Your task to perform on an android device: Show me popular videos on Youtube Image 0: 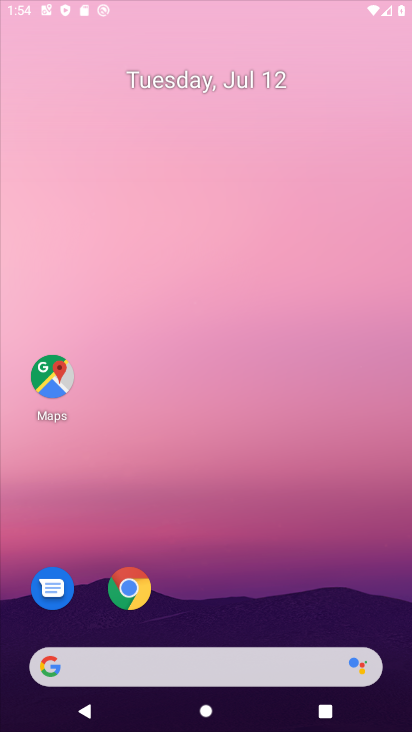
Step 0: click (163, 168)
Your task to perform on an android device: Show me popular videos on Youtube Image 1: 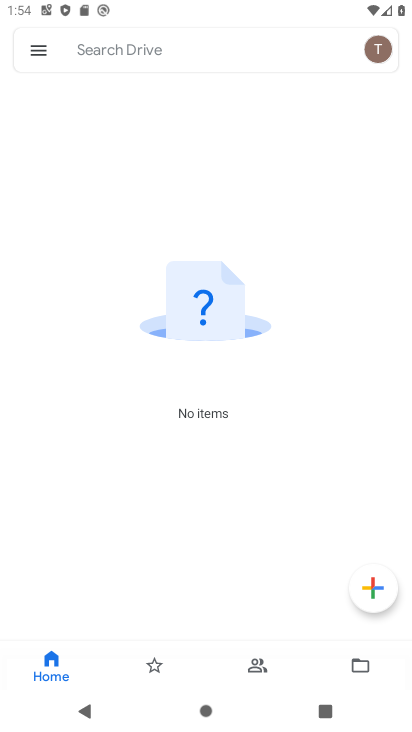
Step 1: press home button
Your task to perform on an android device: Show me popular videos on Youtube Image 2: 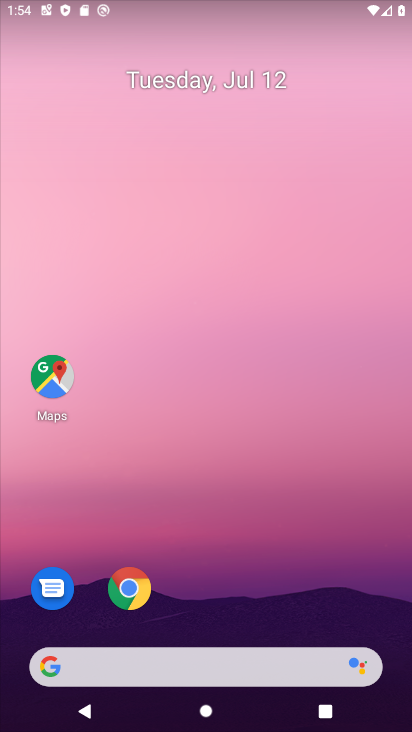
Step 2: drag from (229, 665) to (147, 150)
Your task to perform on an android device: Show me popular videos on Youtube Image 3: 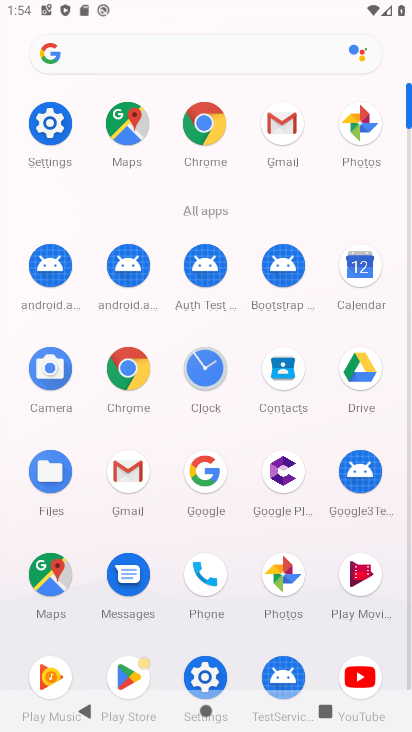
Step 3: click (351, 666)
Your task to perform on an android device: Show me popular videos on Youtube Image 4: 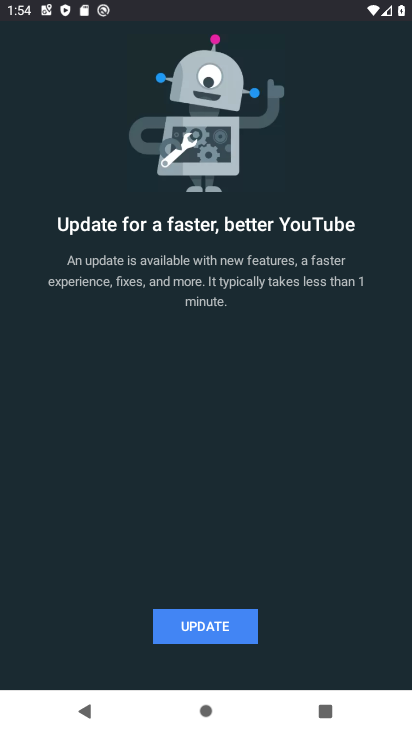
Step 4: click (246, 622)
Your task to perform on an android device: Show me popular videos on Youtube Image 5: 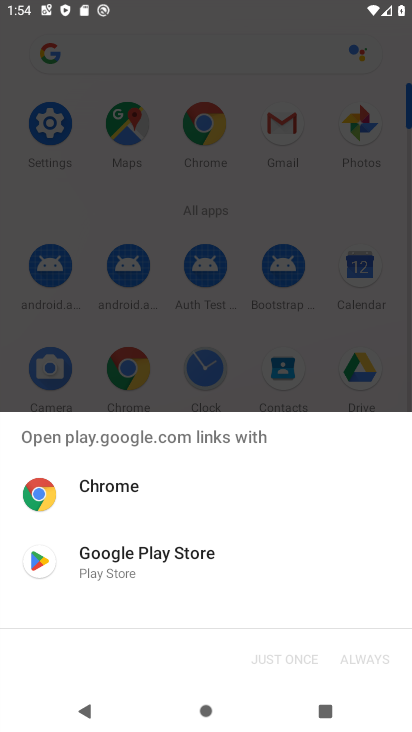
Step 5: click (182, 564)
Your task to perform on an android device: Show me popular videos on Youtube Image 6: 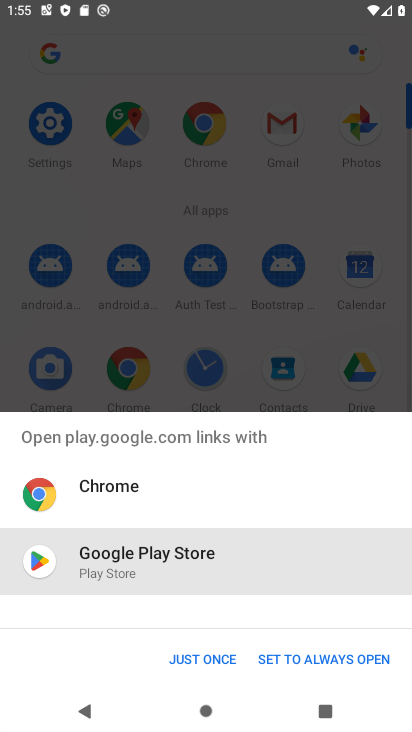
Step 6: click (192, 657)
Your task to perform on an android device: Show me popular videos on Youtube Image 7: 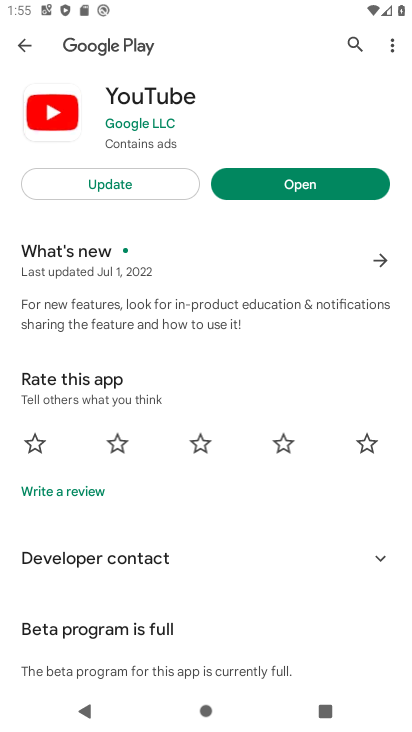
Step 7: click (279, 182)
Your task to perform on an android device: Show me popular videos on Youtube Image 8: 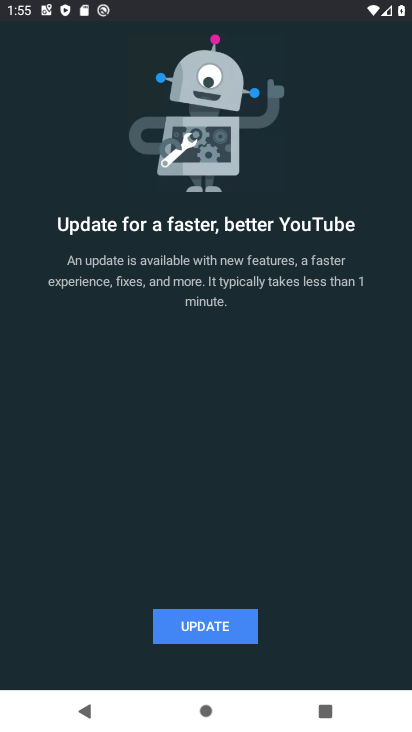
Step 8: click (212, 632)
Your task to perform on an android device: Show me popular videos on Youtube Image 9: 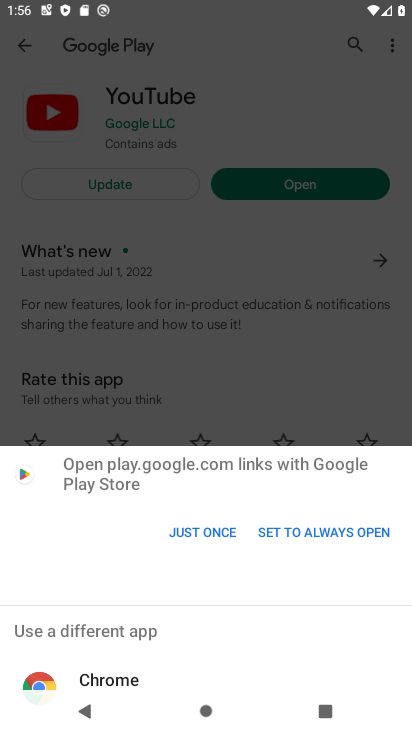
Step 9: click (191, 538)
Your task to perform on an android device: Show me popular videos on Youtube Image 10: 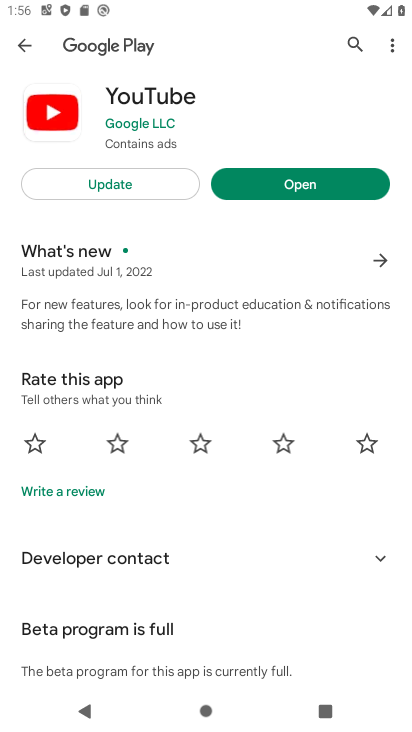
Step 10: click (98, 190)
Your task to perform on an android device: Show me popular videos on Youtube Image 11: 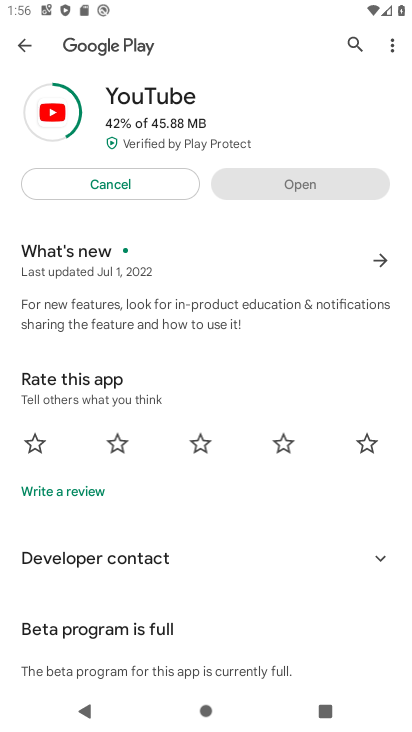
Step 11: click (241, 299)
Your task to perform on an android device: Show me popular videos on Youtube Image 12: 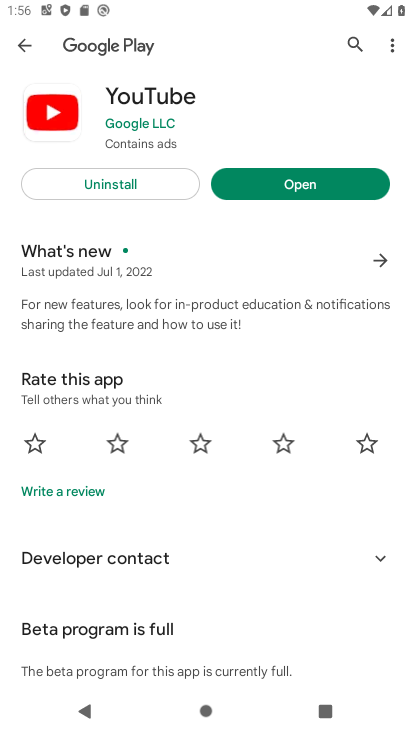
Step 12: click (254, 190)
Your task to perform on an android device: Show me popular videos on Youtube Image 13: 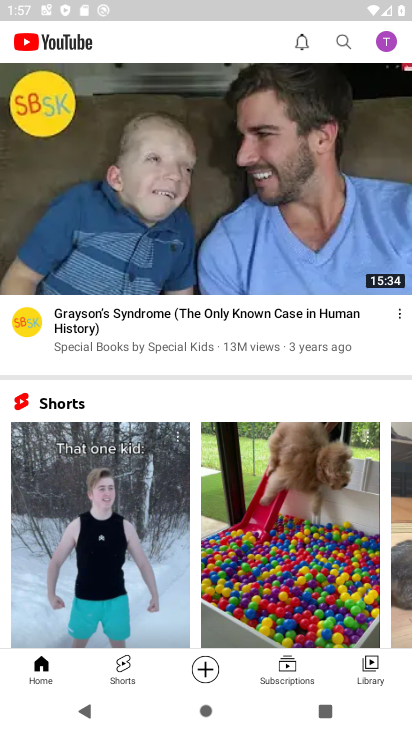
Step 13: drag from (112, 152) to (107, 426)
Your task to perform on an android device: Show me popular videos on Youtube Image 14: 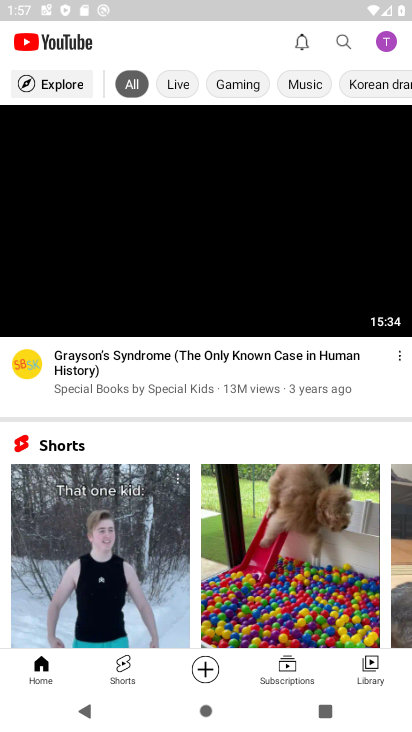
Step 14: click (50, 86)
Your task to perform on an android device: Show me popular videos on Youtube Image 15: 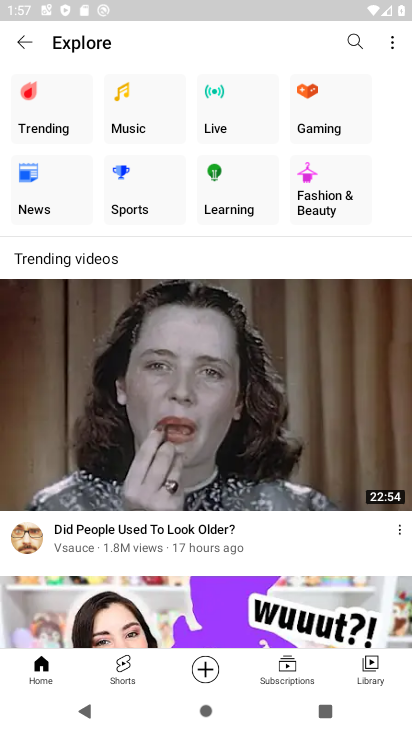
Step 15: click (58, 111)
Your task to perform on an android device: Show me popular videos on Youtube Image 16: 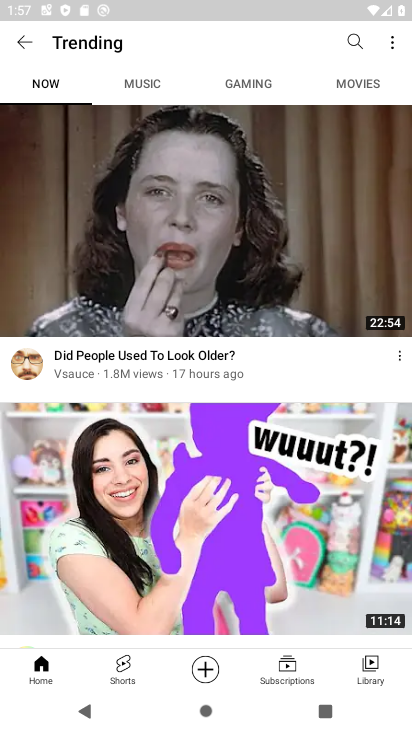
Step 16: task complete